Your task to perform on an android device: change keyboard looks Image 0: 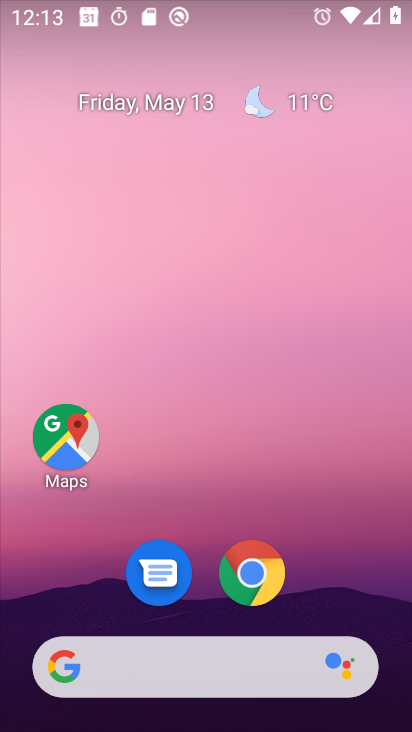
Step 0: drag from (390, 570) to (326, 308)
Your task to perform on an android device: change keyboard looks Image 1: 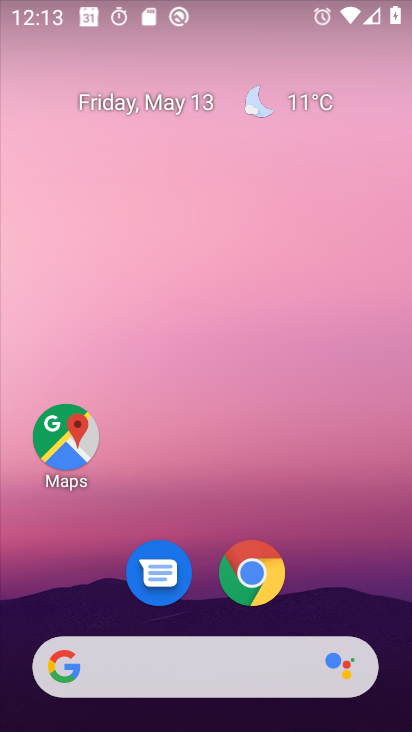
Step 1: drag from (399, 500) to (377, 330)
Your task to perform on an android device: change keyboard looks Image 2: 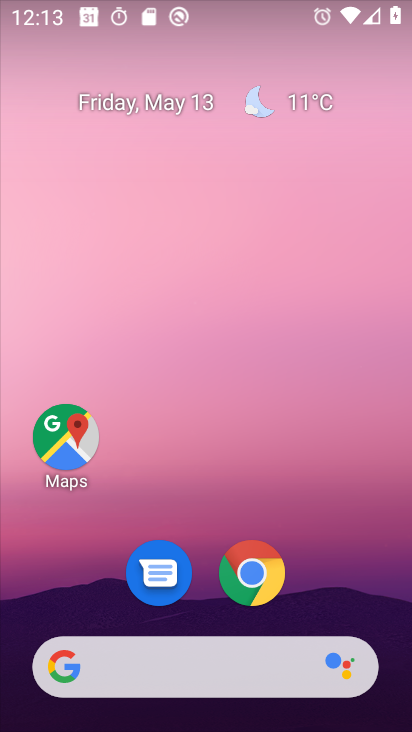
Step 2: drag from (400, 655) to (365, 162)
Your task to perform on an android device: change keyboard looks Image 3: 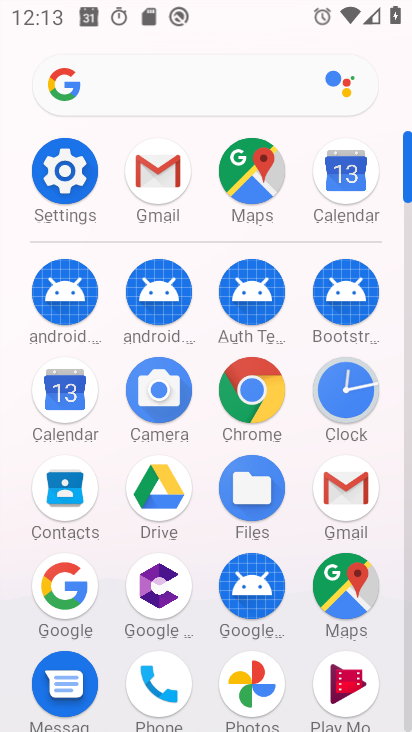
Step 3: click (49, 171)
Your task to perform on an android device: change keyboard looks Image 4: 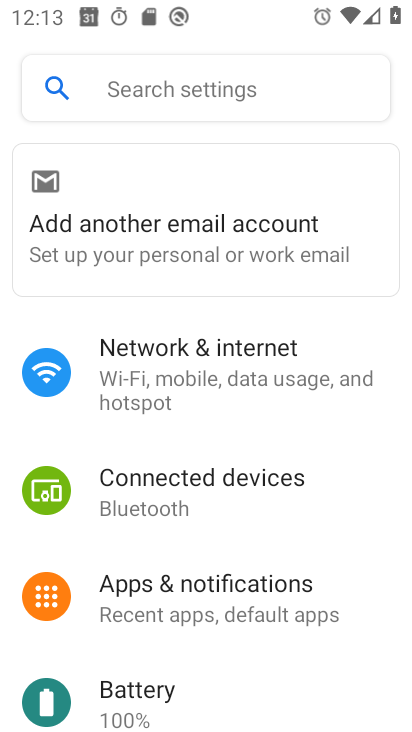
Step 4: drag from (323, 658) to (319, 370)
Your task to perform on an android device: change keyboard looks Image 5: 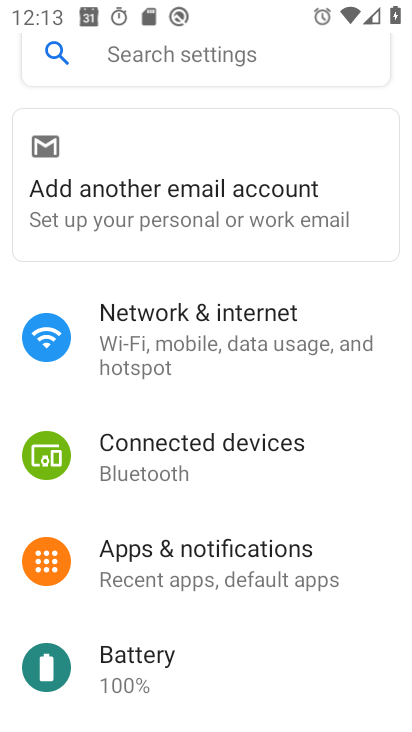
Step 5: drag from (319, 682) to (291, 362)
Your task to perform on an android device: change keyboard looks Image 6: 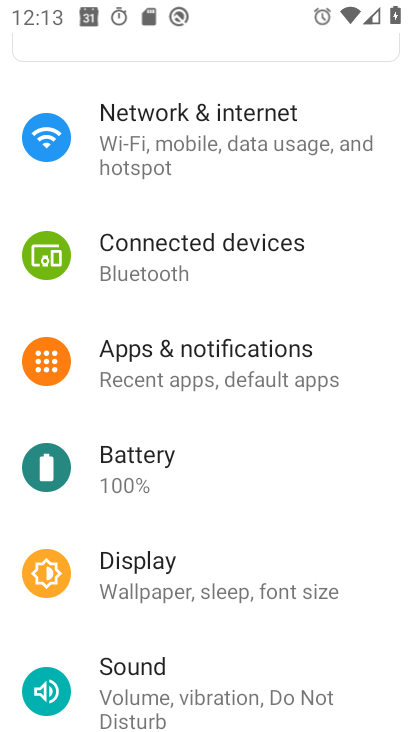
Step 6: drag from (368, 654) to (359, 328)
Your task to perform on an android device: change keyboard looks Image 7: 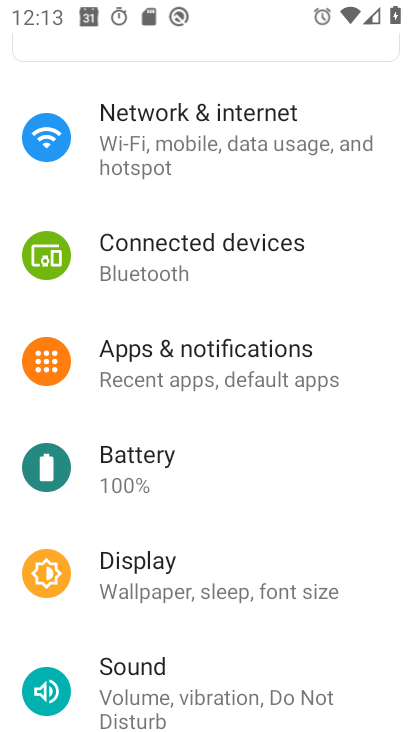
Step 7: drag from (364, 691) to (359, 396)
Your task to perform on an android device: change keyboard looks Image 8: 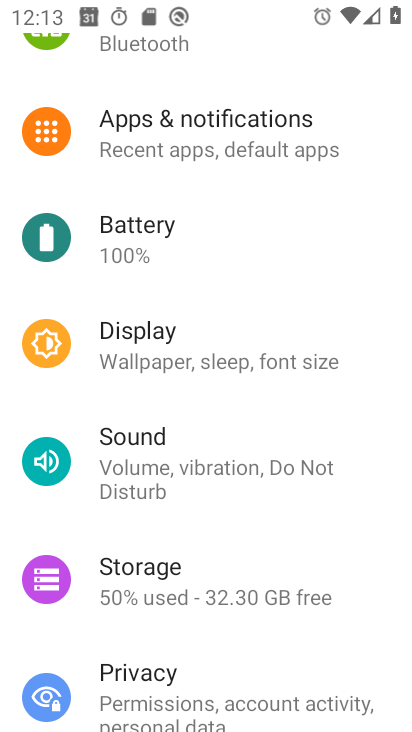
Step 8: drag from (379, 681) to (337, 384)
Your task to perform on an android device: change keyboard looks Image 9: 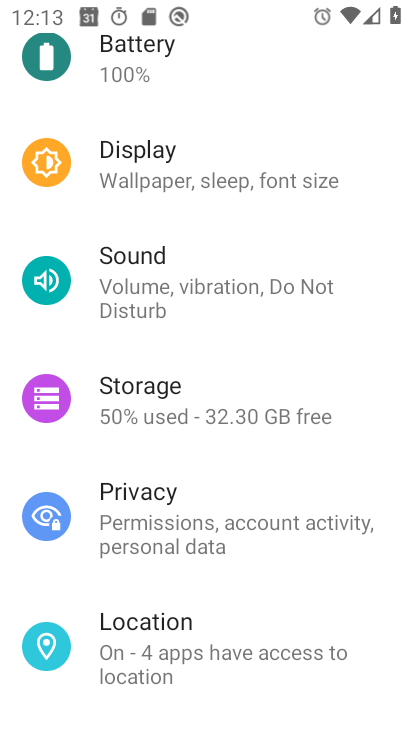
Step 9: drag from (377, 692) to (384, 536)
Your task to perform on an android device: change keyboard looks Image 10: 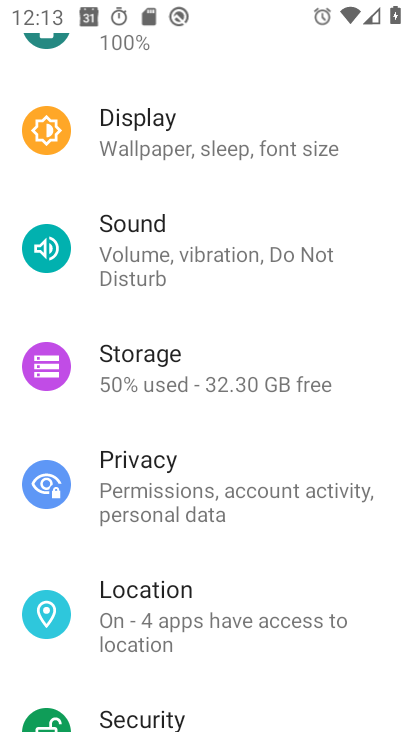
Step 10: drag from (392, 684) to (412, 240)
Your task to perform on an android device: change keyboard looks Image 11: 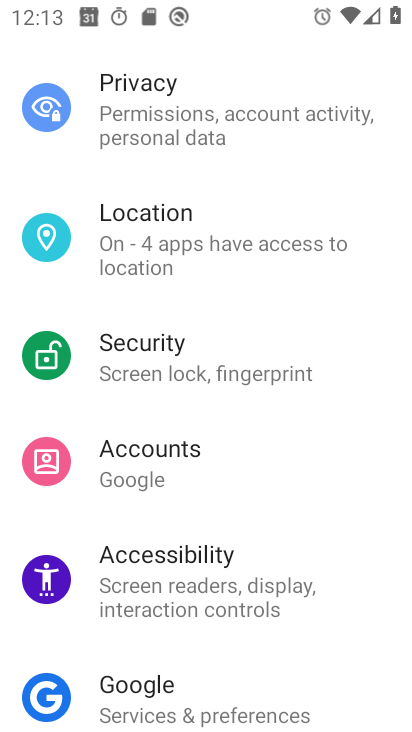
Step 11: drag from (385, 717) to (366, 360)
Your task to perform on an android device: change keyboard looks Image 12: 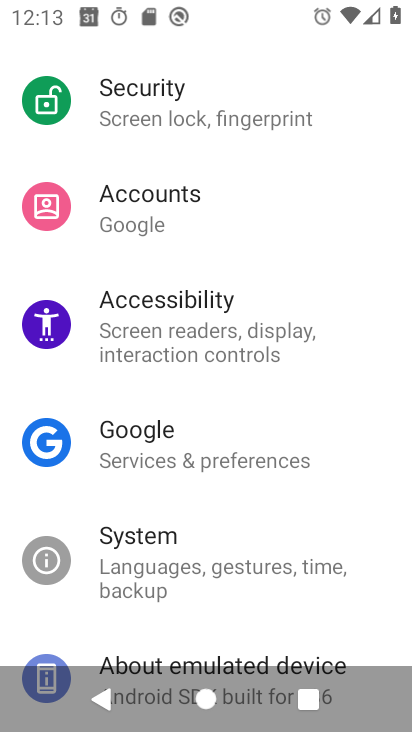
Step 12: drag from (364, 652) to (360, 309)
Your task to perform on an android device: change keyboard looks Image 13: 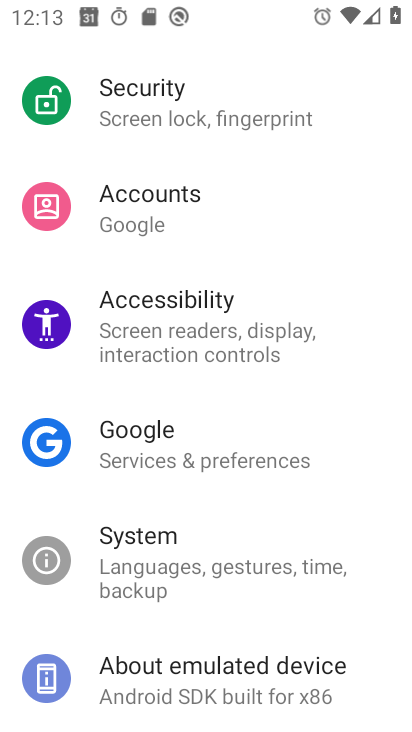
Step 13: click (133, 562)
Your task to perform on an android device: change keyboard looks Image 14: 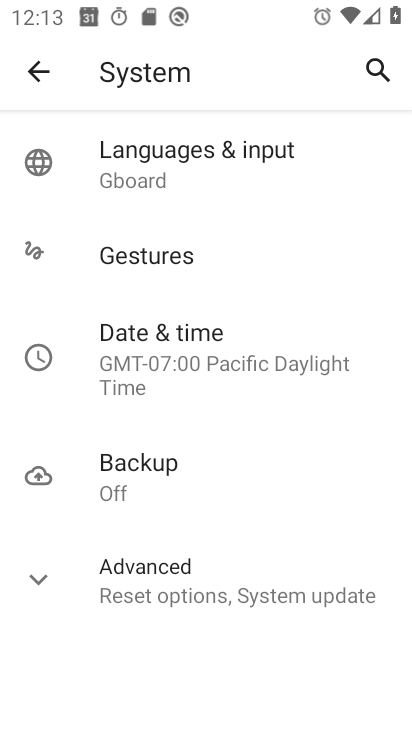
Step 14: click (113, 175)
Your task to perform on an android device: change keyboard looks Image 15: 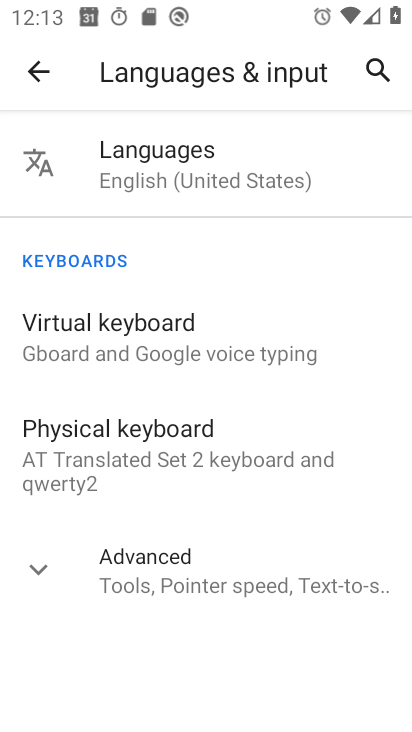
Step 15: click (85, 329)
Your task to perform on an android device: change keyboard looks Image 16: 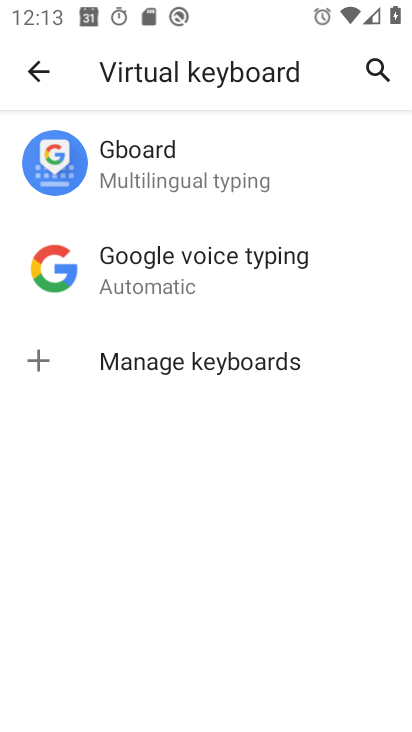
Step 16: click (69, 154)
Your task to perform on an android device: change keyboard looks Image 17: 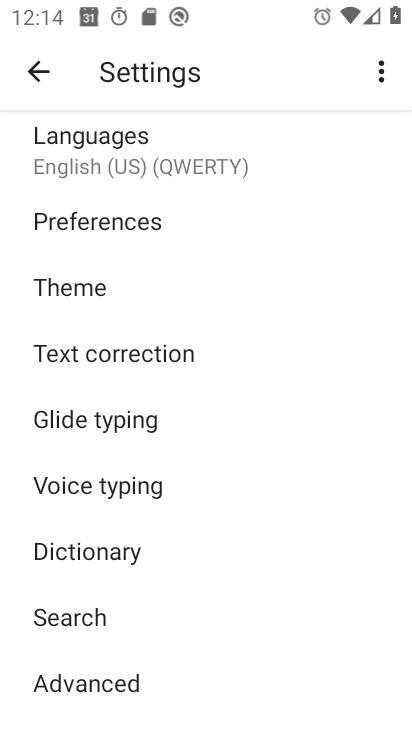
Step 17: click (65, 291)
Your task to perform on an android device: change keyboard looks Image 18: 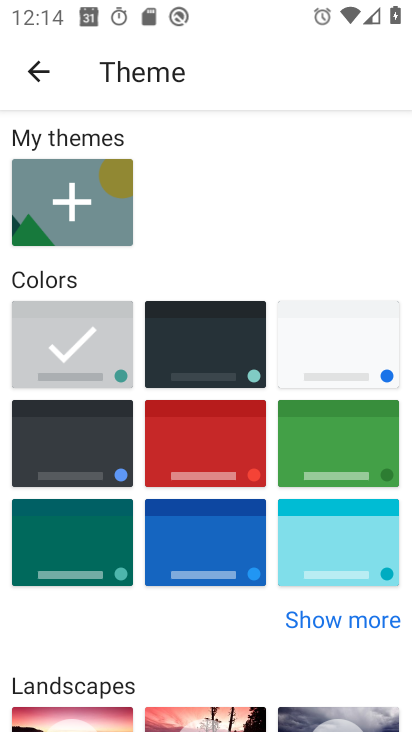
Step 18: click (204, 359)
Your task to perform on an android device: change keyboard looks Image 19: 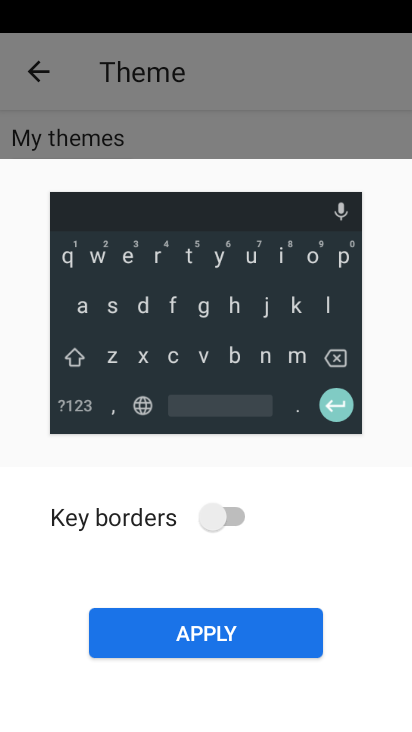
Step 19: click (245, 516)
Your task to perform on an android device: change keyboard looks Image 20: 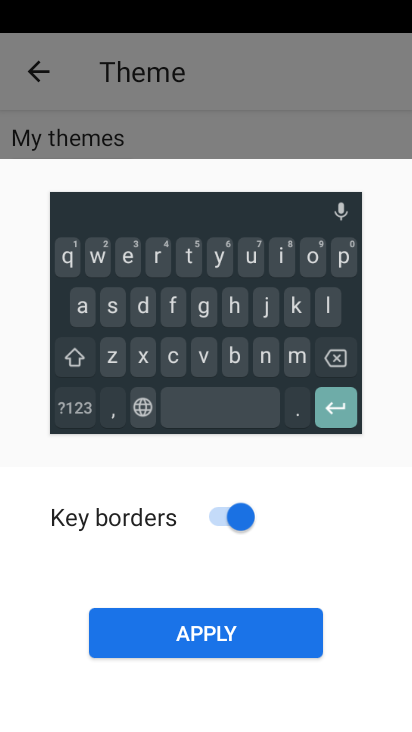
Step 20: click (246, 639)
Your task to perform on an android device: change keyboard looks Image 21: 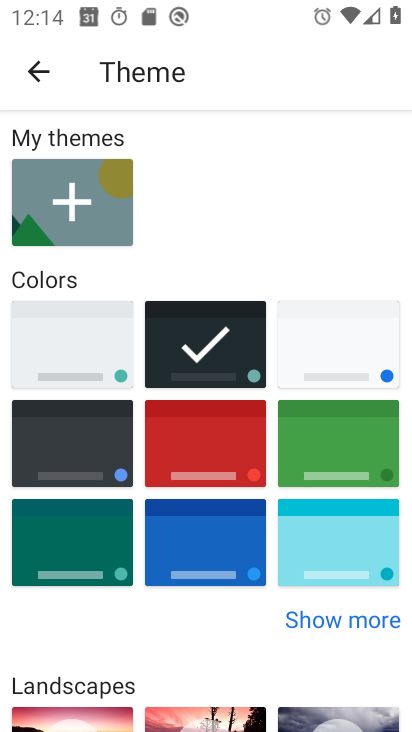
Step 21: task complete